Your task to perform on an android device: View the shopping cart on ebay.com. Add razer blackwidow to the cart on ebay.com, then select checkout. Image 0: 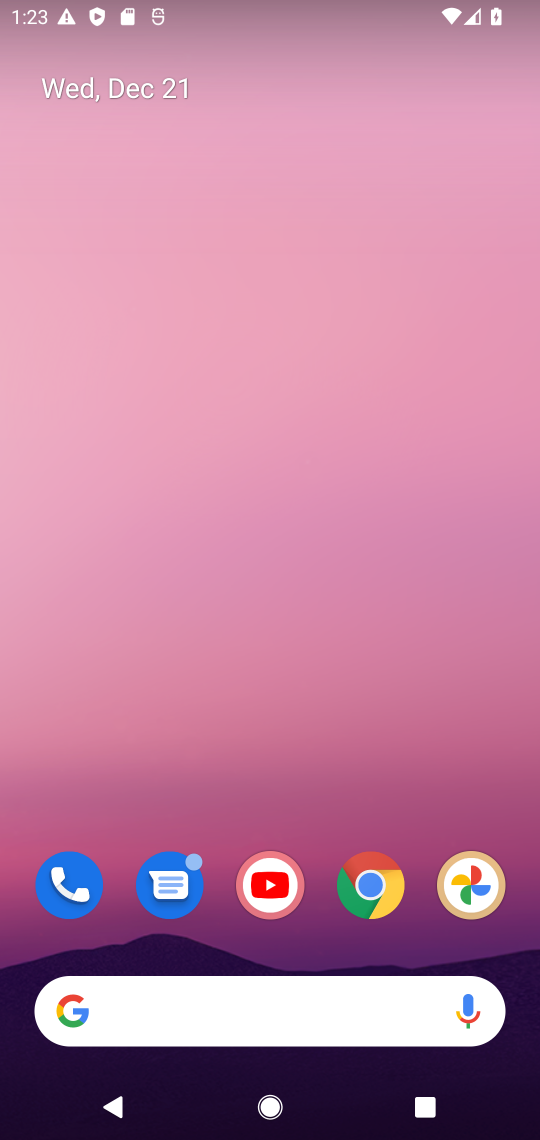
Step 0: drag from (249, 1024) to (357, 176)
Your task to perform on an android device: View the shopping cart on ebay.com. Add razer blackwidow to the cart on ebay.com, then select checkout. Image 1: 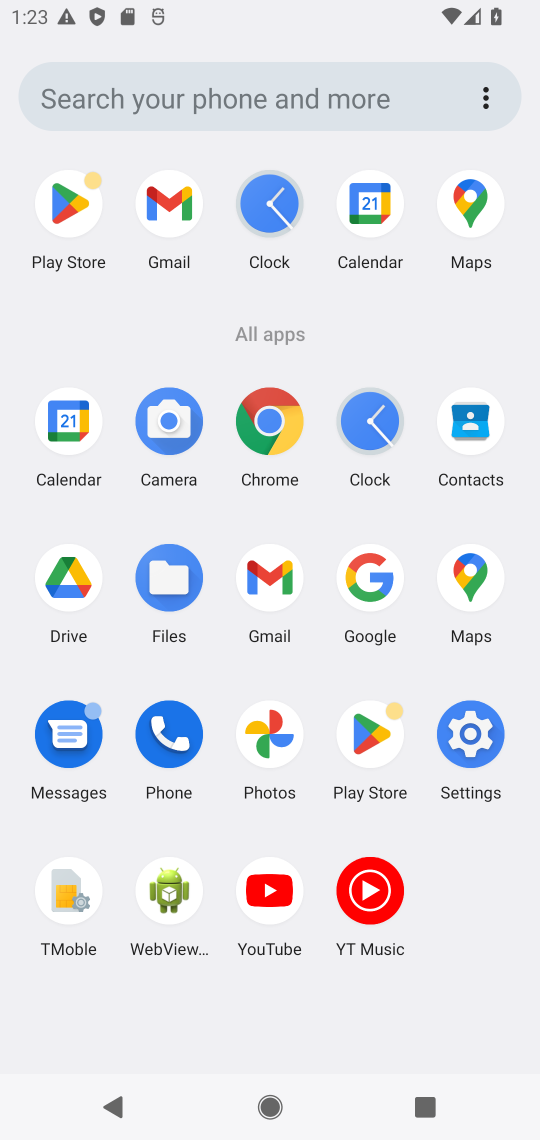
Step 1: click (363, 571)
Your task to perform on an android device: View the shopping cart on ebay.com. Add razer blackwidow to the cart on ebay.com, then select checkout. Image 2: 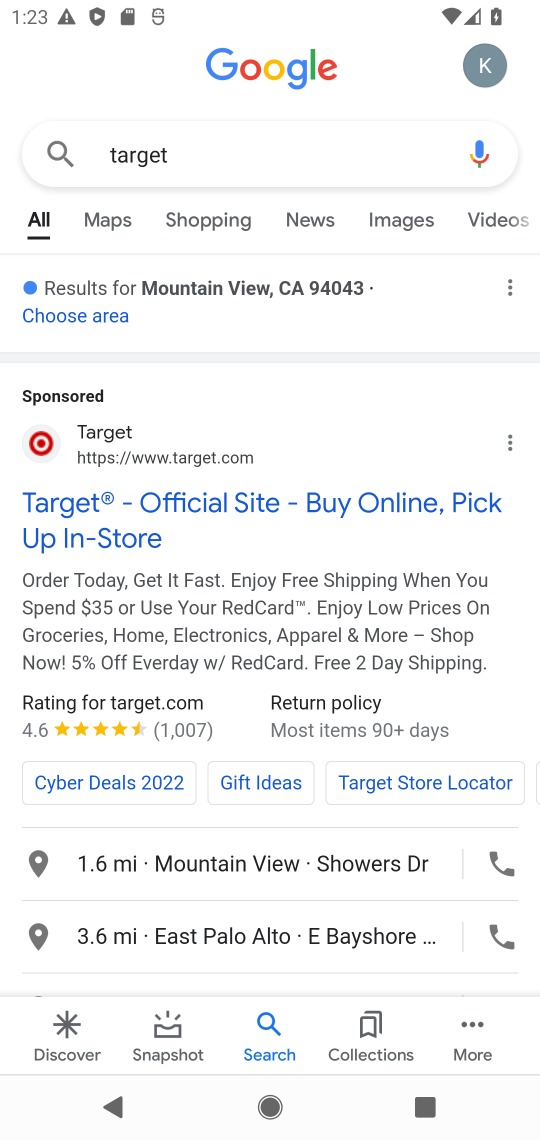
Step 2: click (164, 145)
Your task to perform on an android device: View the shopping cart on ebay.com. Add razer blackwidow to the cart on ebay.com, then select checkout. Image 3: 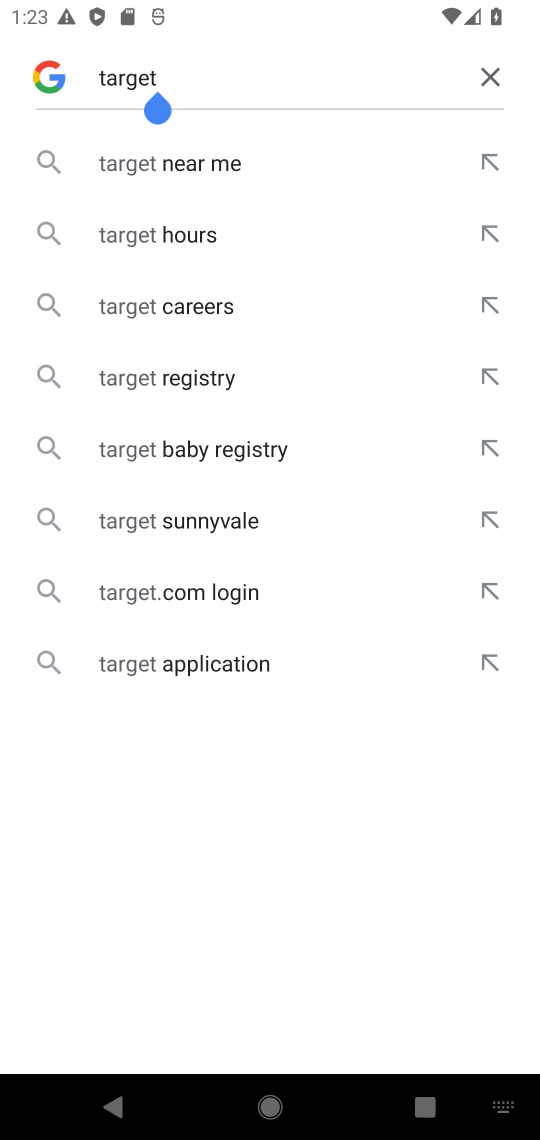
Step 3: click (491, 68)
Your task to perform on an android device: View the shopping cart on ebay.com. Add razer blackwidow to the cart on ebay.com, then select checkout. Image 4: 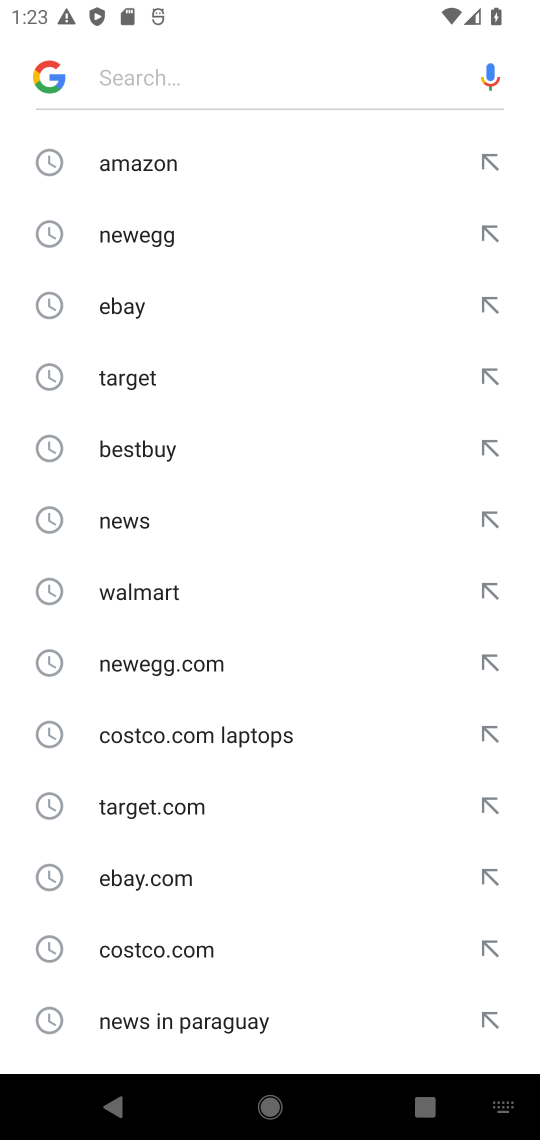
Step 4: click (142, 298)
Your task to perform on an android device: View the shopping cart on ebay.com. Add razer blackwidow to the cart on ebay.com, then select checkout. Image 5: 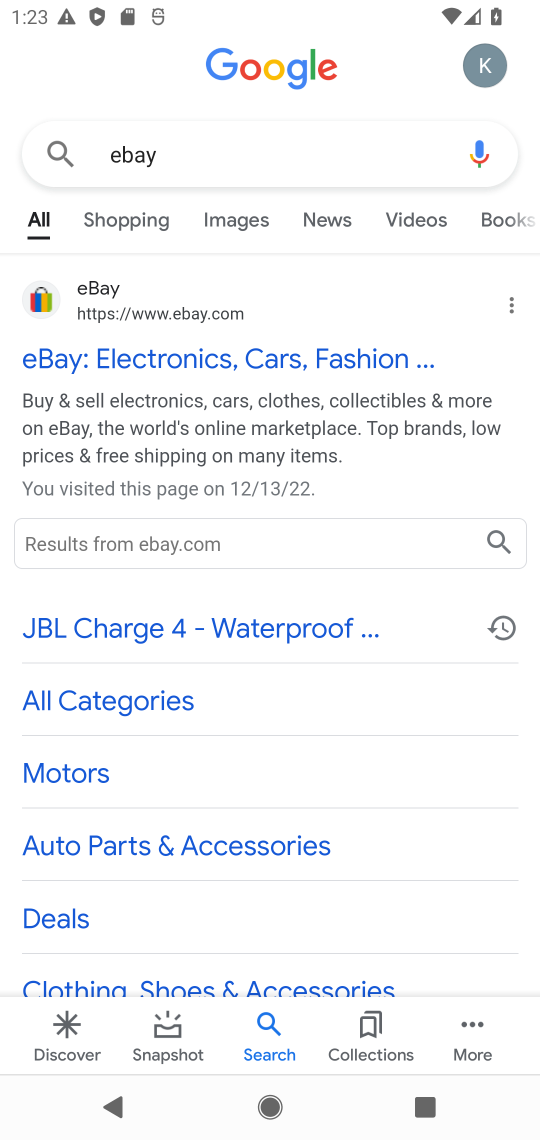
Step 5: click (145, 363)
Your task to perform on an android device: View the shopping cart on ebay.com. Add razer blackwidow to the cart on ebay.com, then select checkout. Image 6: 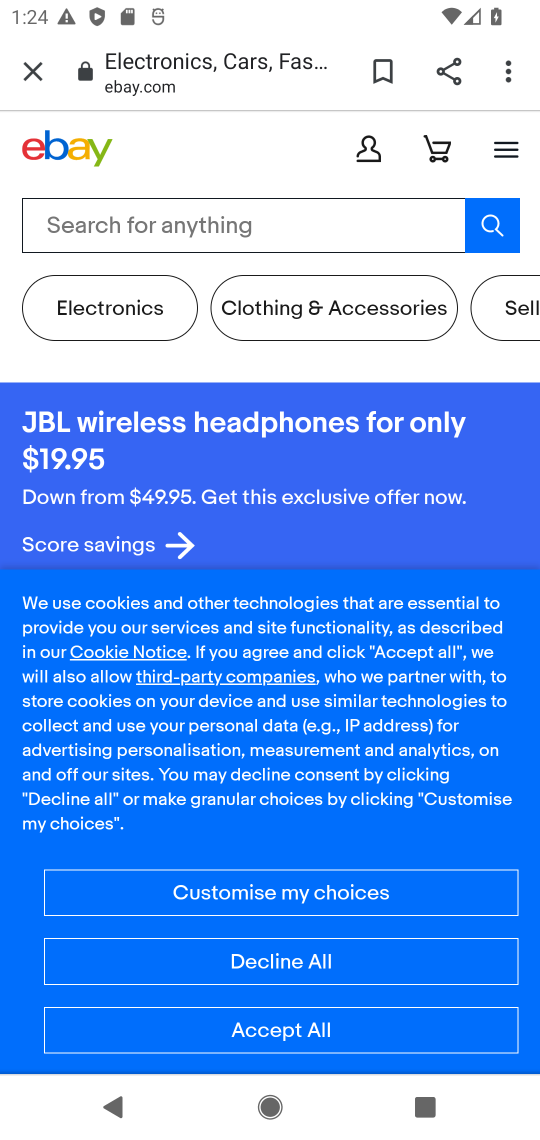
Step 6: click (158, 222)
Your task to perform on an android device: View the shopping cart on ebay.com. Add razer blackwidow to the cart on ebay.com, then select checkout. Image 7: 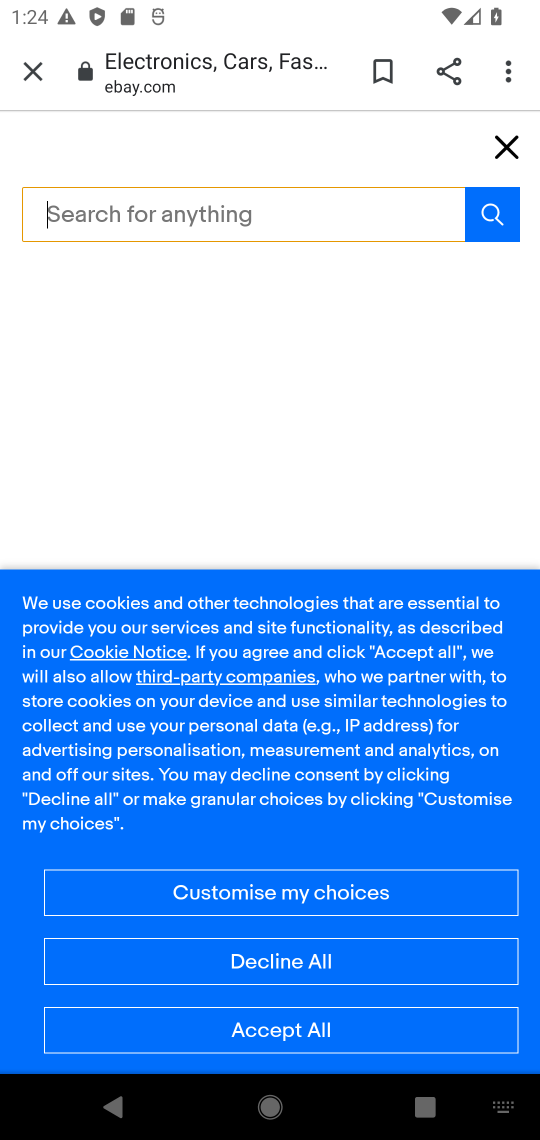
Step 7: type "razer blackwidow"
Your task to perform on an android device: View the shopping cart on ebay.com. Add razer blackwidow to the cart on ebay.com, then select checkout. Image 8: 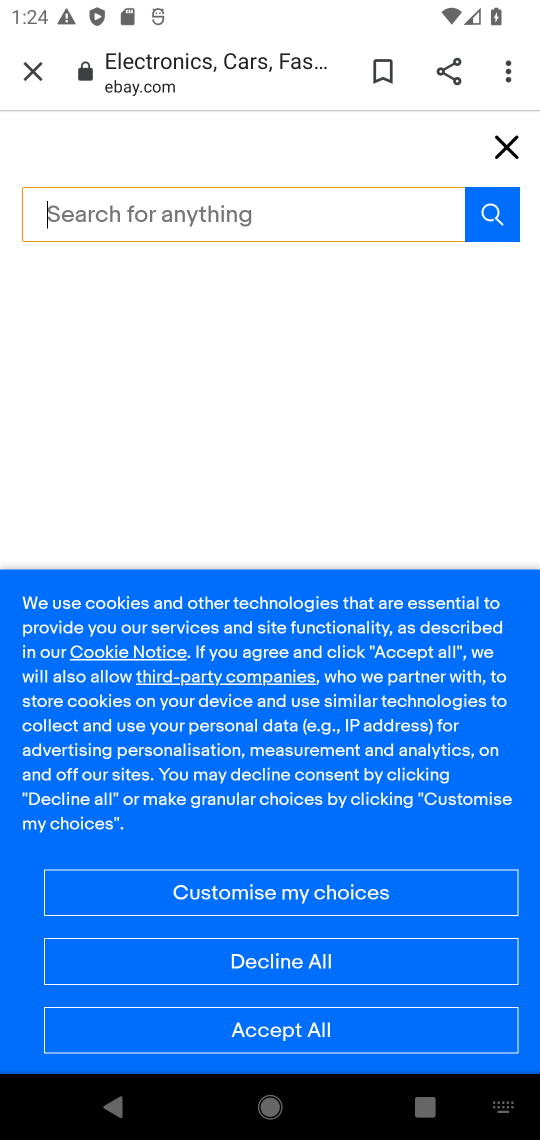
Step 8: click (484, 214)
Your task to perform on an android device: View the shopping cart on ebay.com. Add razer blackwidow to the cart on ebay.com, then select checkout. Image 9: 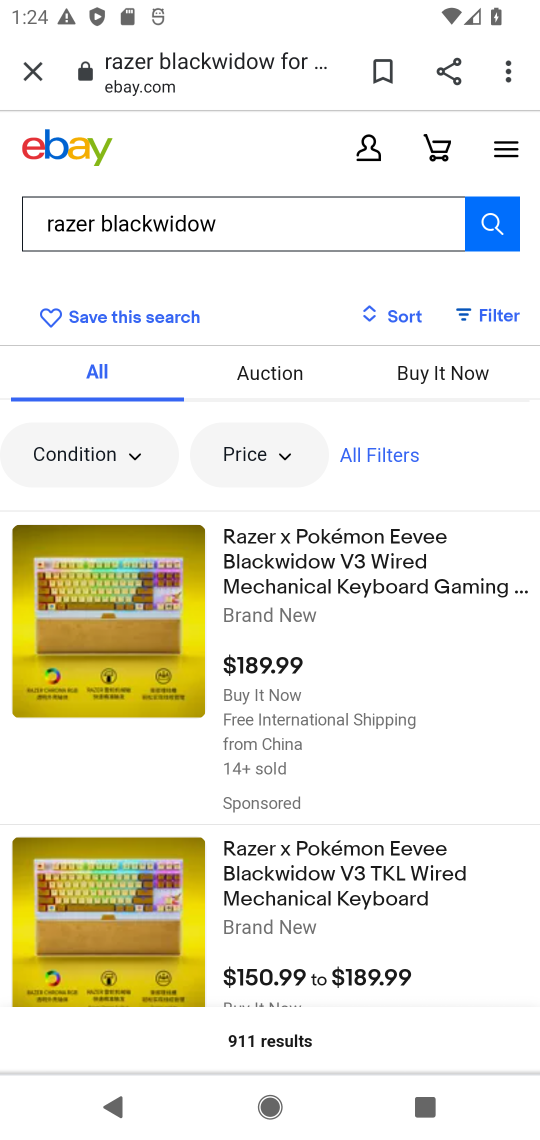
Step 9: click (312, 565)
Your task to perform on an android device: View the shopping cart on ebay.com. Add razer blackwidow to the cart on ebay.com, then select checkout. Image 10: 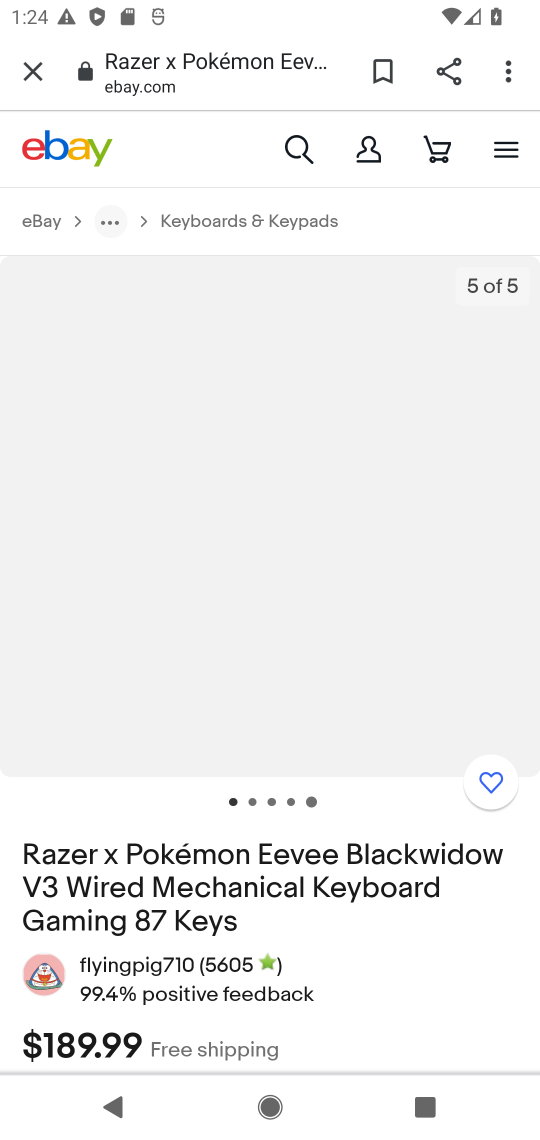
Step 10: drag from (290, 950) to (220, 423)
Your task to perform on an android device: View the shopping cart on ebay.com. Add razer blackwidow to the cart on ebay.com, then select checkout. Image 11: 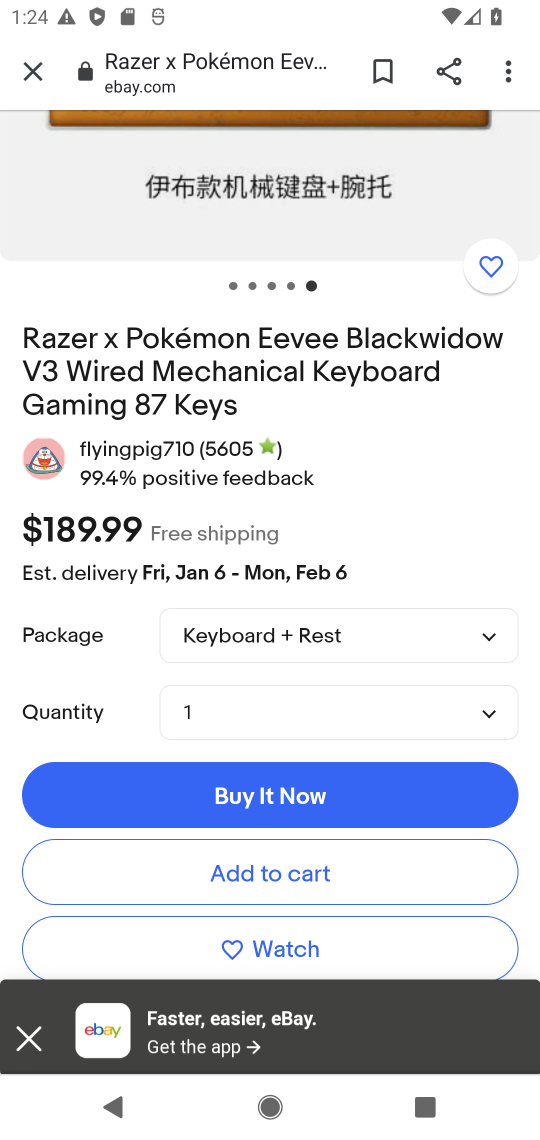
Step 11: click (254, 868)
Your task to perform on an android device: View the shopping cart on ebay.com. Add razer blackwidow to the cart on ebay.com, then select checkout. Image 12: 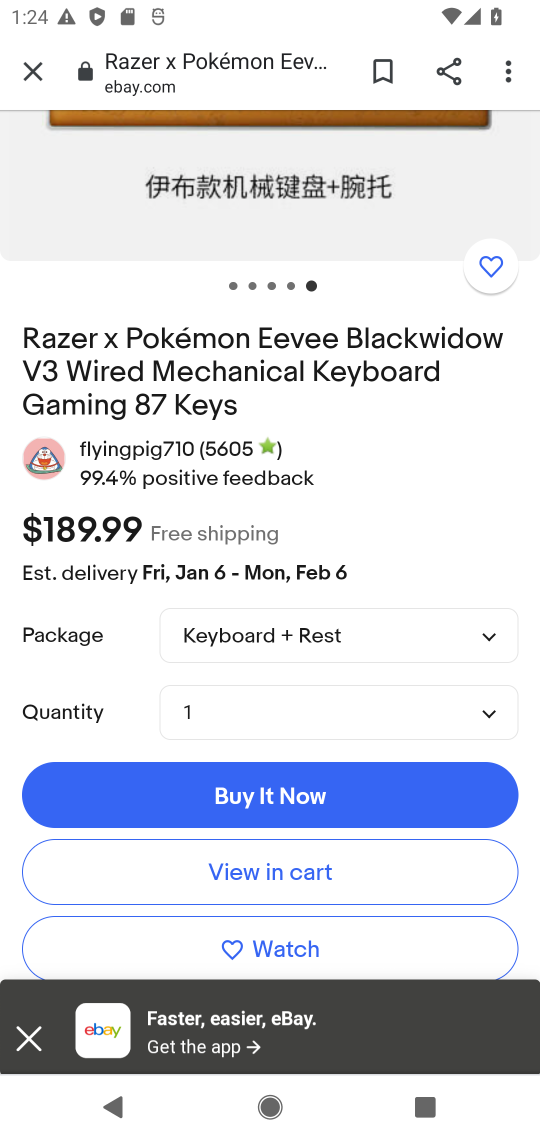
Step 12: click (260, 870)
Your task to perform on an android device: View the shopping cart on ebay.com. Add razer blackwidow to the cart on ebay.com, then select checkout. Image 13: 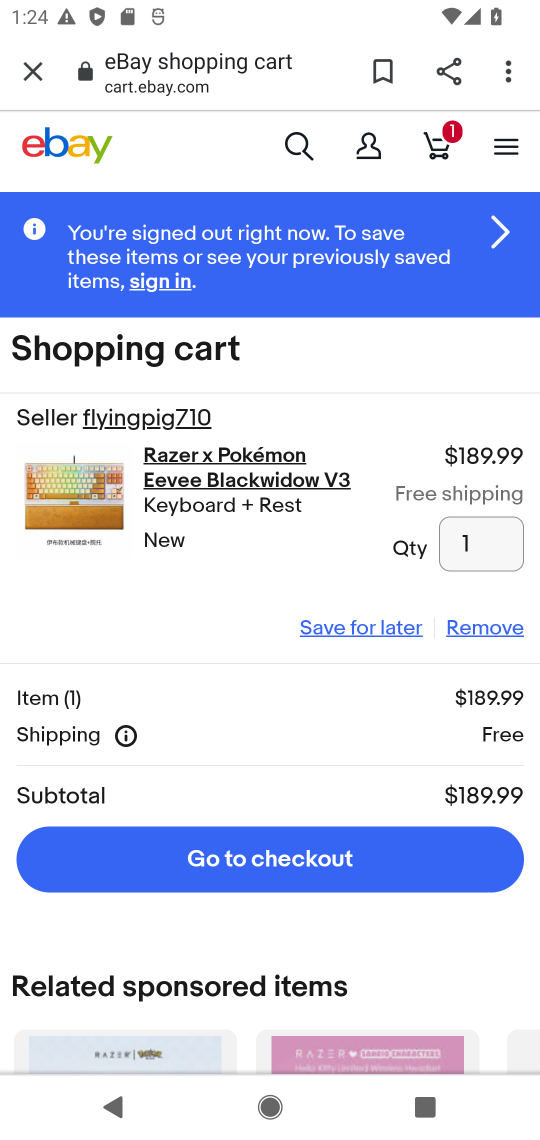
Step 13: click (296, 861)
Your task to perform on an android device: View the shopping cart on ebay.com. Add razer blackwidow to the cart on ebay.com, then select checkout. Image 14: 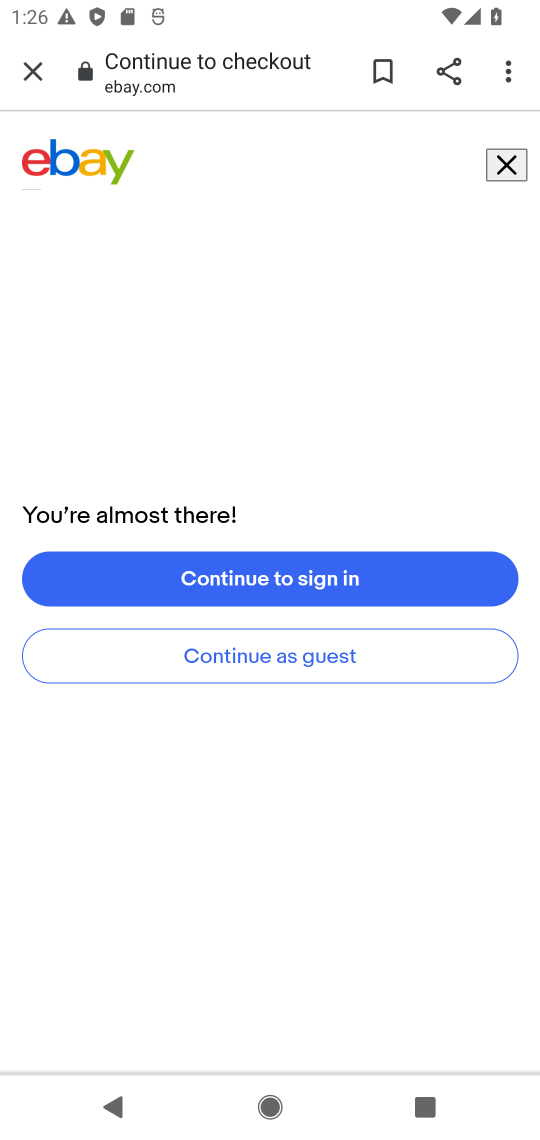
Step 14: task complete